Your task to perform on an android device: change text size in settings app Image 0: 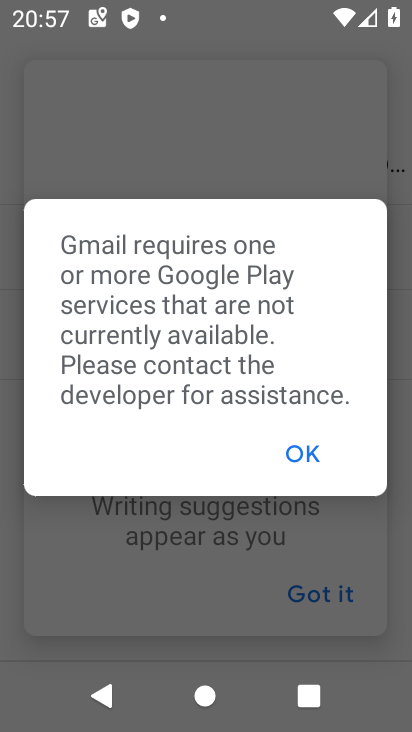
Step 0: press home button
Your task to perform on an android device: change text size in settings app Image 1: 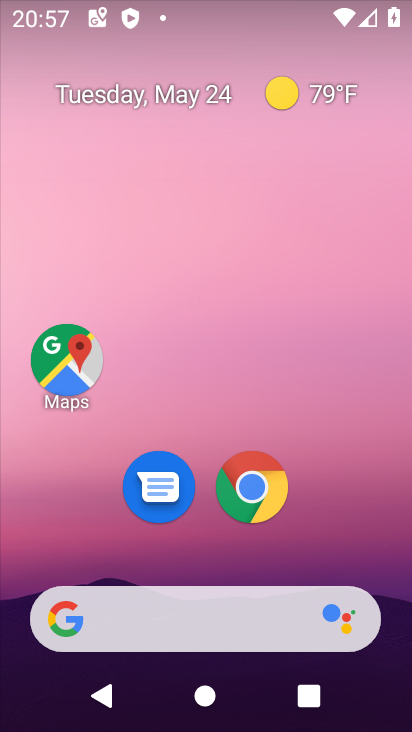
Step 1: drag from (328, 348) to (342, 126)
Your task to perform on an android device: change text size in settings app Image 2: 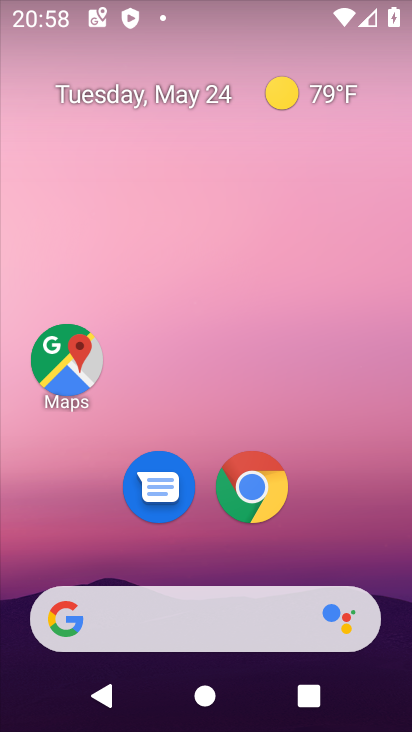
Step 2: drag from (362, 551) to (255, 56)
Your task to perform on an android device: change text size in settings app Image 3: 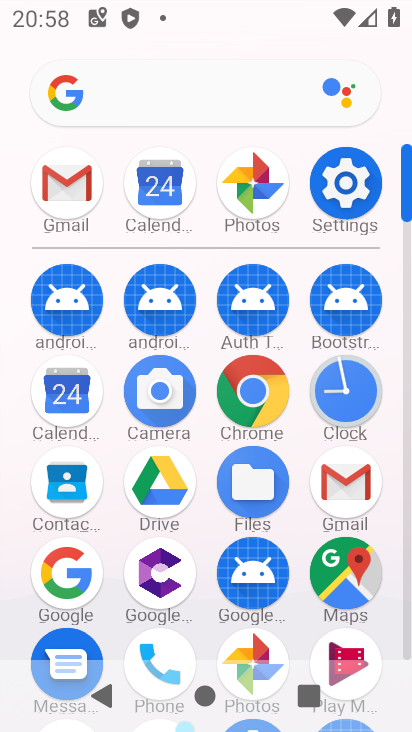
Step 3: click (346, 194)
Your task to perform on an android device: change text size in settings app Image 4: 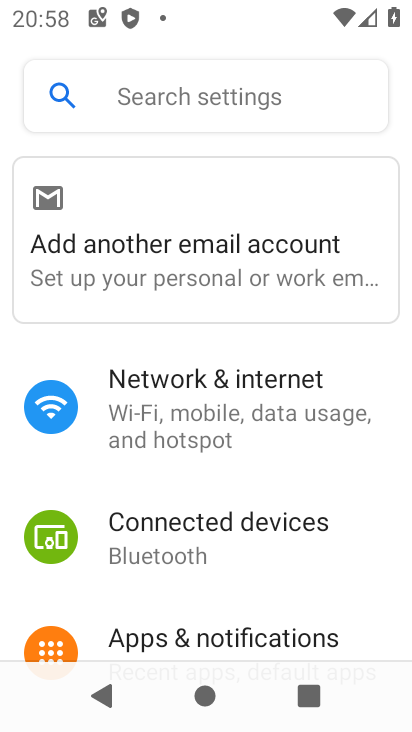
Step 4: drag from (354, 510) to (345, 75)
Your task to perform on an android device: change text size in settings app Image 5: 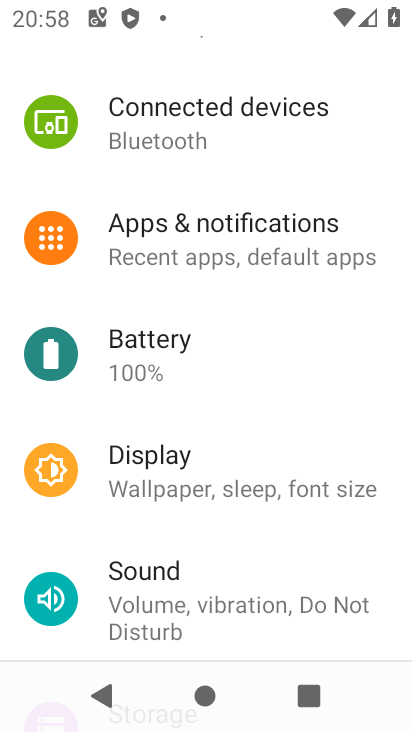
Step 5: click (222, 470)
Your task to perform on an android device: change text size in settings app Image 6: 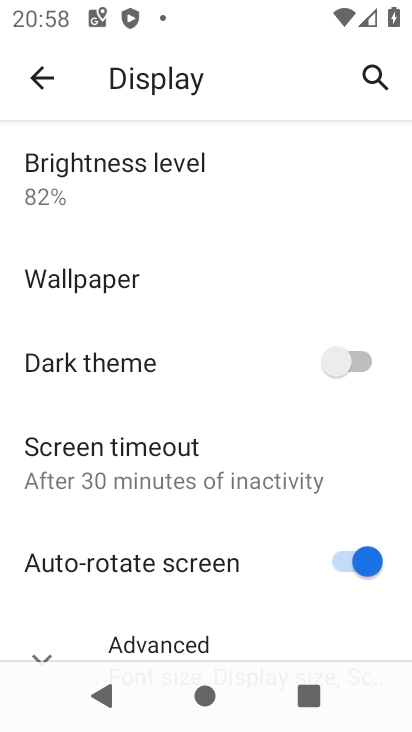
Step 6: drag from (213, 519) to (229, 447)
Your task to perform on an android device: change text size in settings app Image 7: 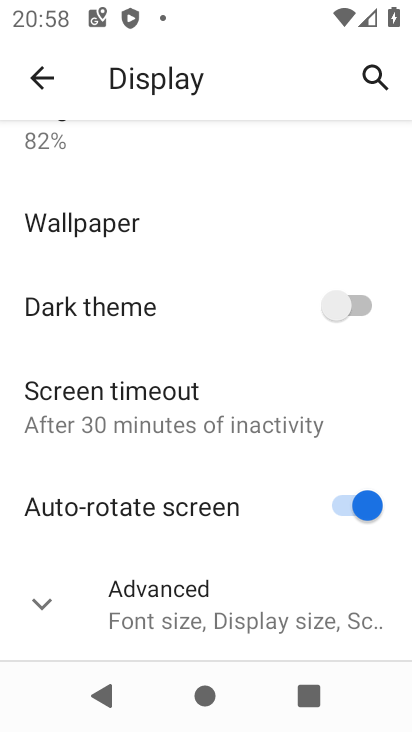
Step 7: click (227, 628)
Your task to perform on an android device: change text size in settings app Image 8: 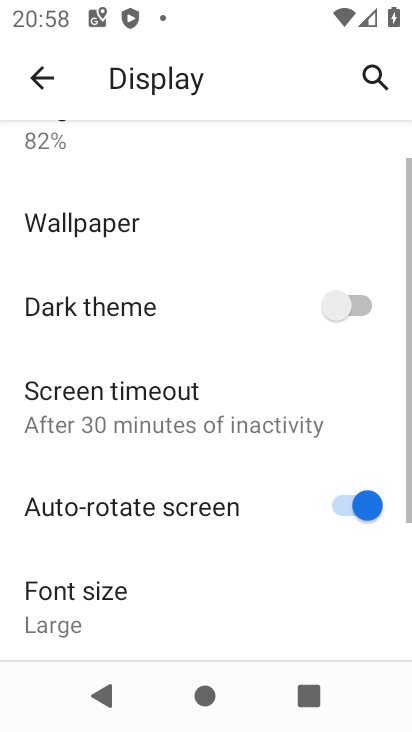
Step 8: click (224, 627)
Your task to perform on an android device: change text size in settings app Image 9: 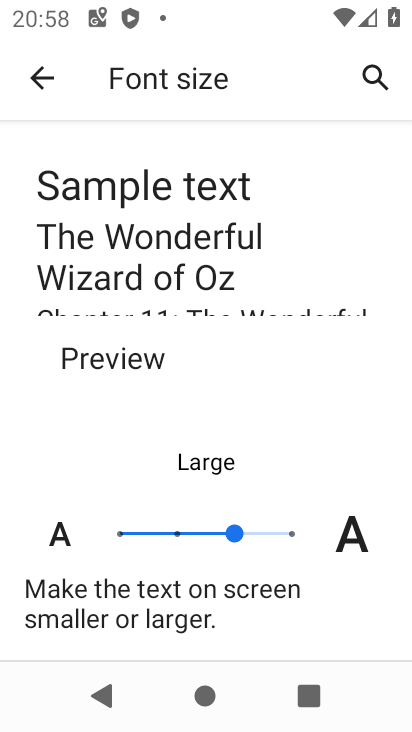
Step 9: click (49, 536)
Your task to perform on an android device: change text size in settings app Image 10: 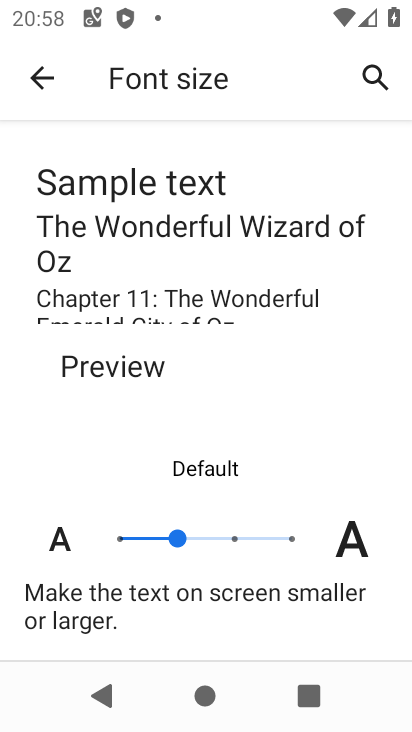
Step 10: task complete